Your task to perform on an android device: find which apps use the phone's location Image 0: 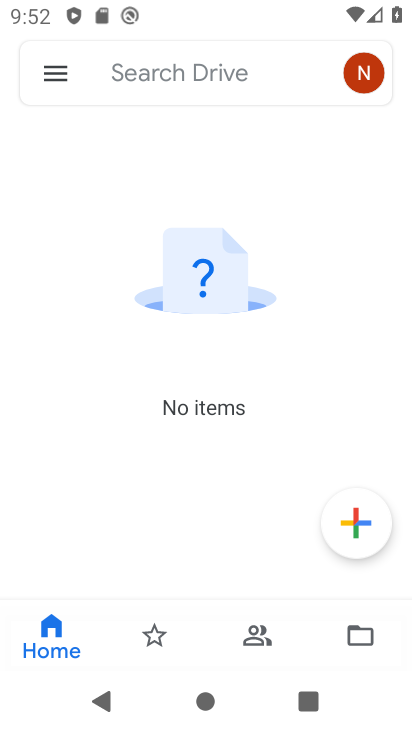
Step 0: press home button
Your task to perform on an android device: find which apps use the phone's location Image 1: 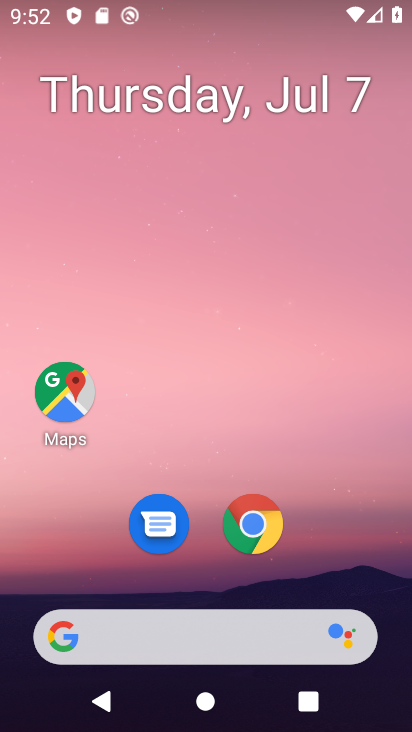
Step 1: drag from (222, 430) to (206, 2)
Your task to perform on an android device: find which apps use the phone's location Image 2: 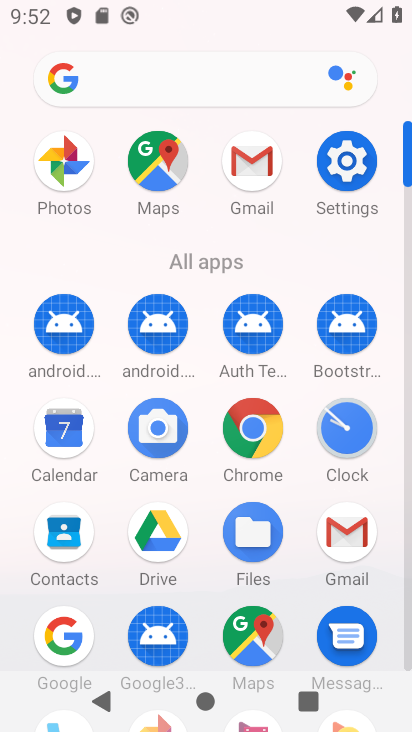
Step 2: click (344, 173)
Your task to perform on an android device: find which apps use the phone's location Image 3: 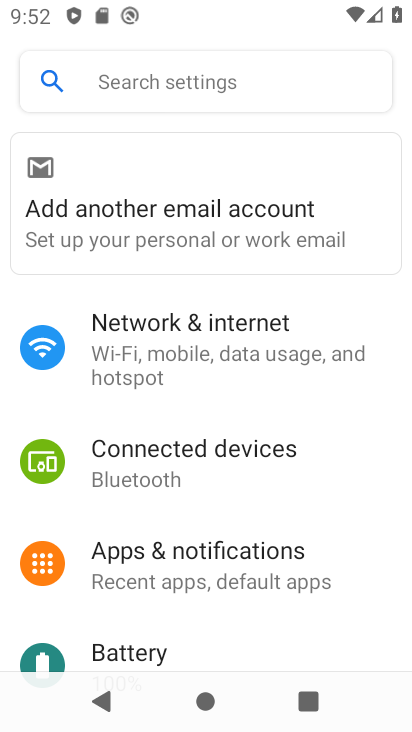
Step 3: drag from (210, 610) to (246, 240)
Your task to perform on an android device: find which apps use the phone's location Image 4: 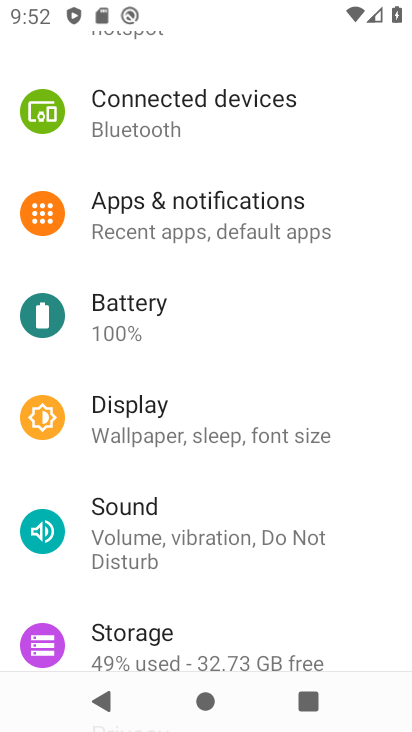
Step 4: drag from (219, 565) to (235, 218)
Your task to perform on an android device: find which apps use the phone's location Image 5: 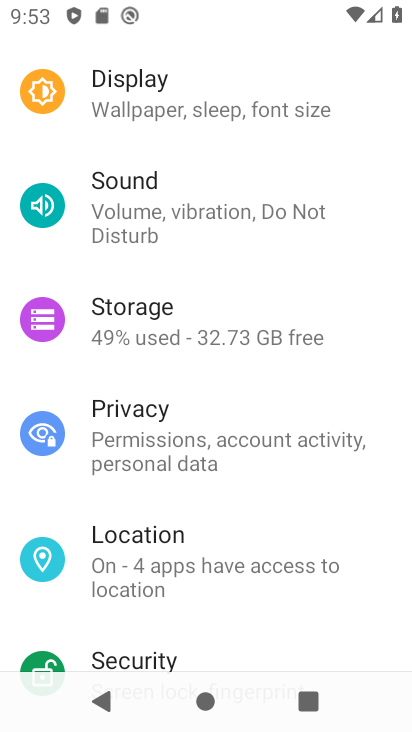
Step 5: click (197, 547)
Your task to perform on an android device: find which apps use the phone's location Image 6: 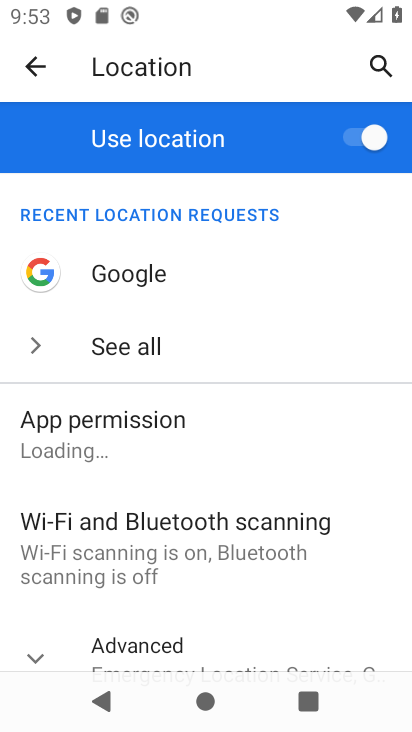
Step 6: click (174, 434)
Your task to perform on an android device: find which apps use the phone's location Image 7: 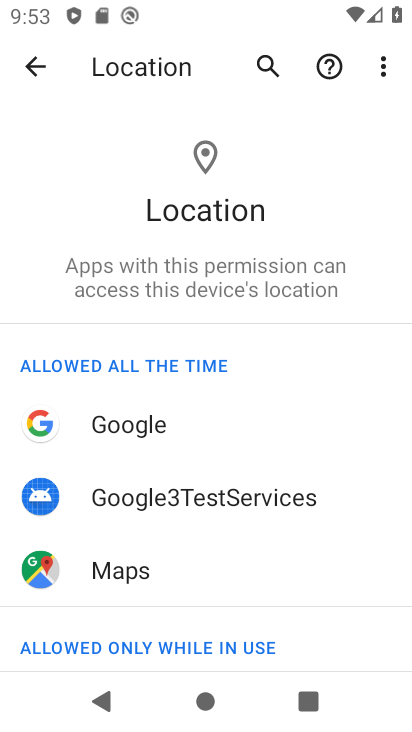
Step 7: task complete